Your task to perform on an android device: turn off sleep mode Image 0: 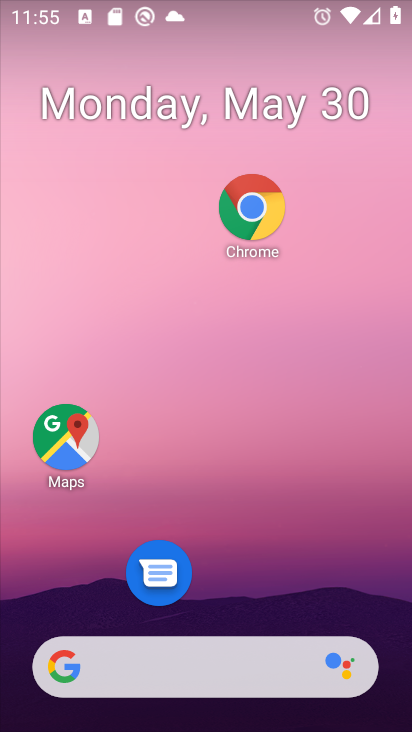
Step 0: drag from (268, 620) to (260, 24)
Your task to perform on an android device: turn off sleep mode Image 1: 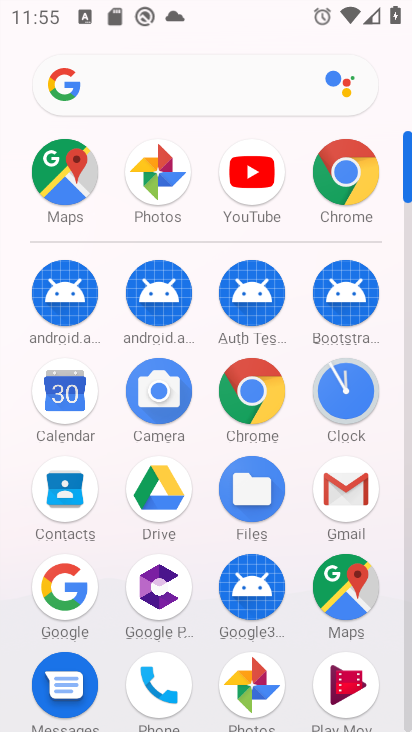
Step 1: drag from (126, 478) to (213, 27)
Your task to perform on an android device: turn off sleep mode Image 2: 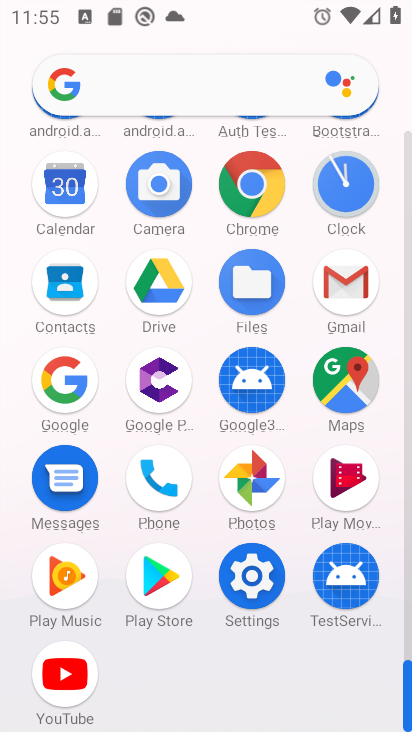
Step 2: click (267, 597)
Your task to perform on an android device: turn off sleep mode Image 3: 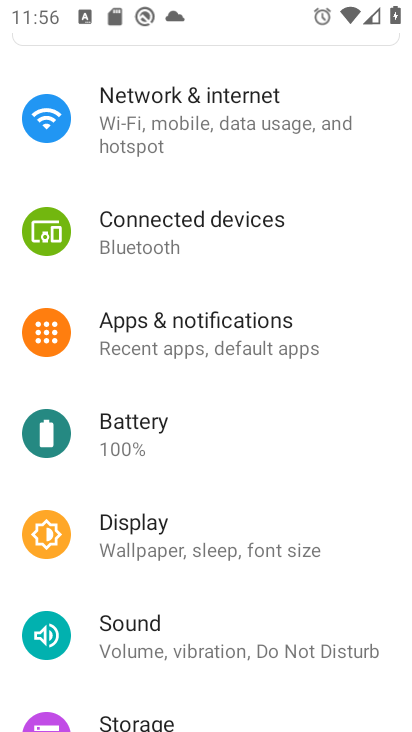
Step 3: click (237, 558)
Your task to perform on an android device: turn off sleep mode Image 4: 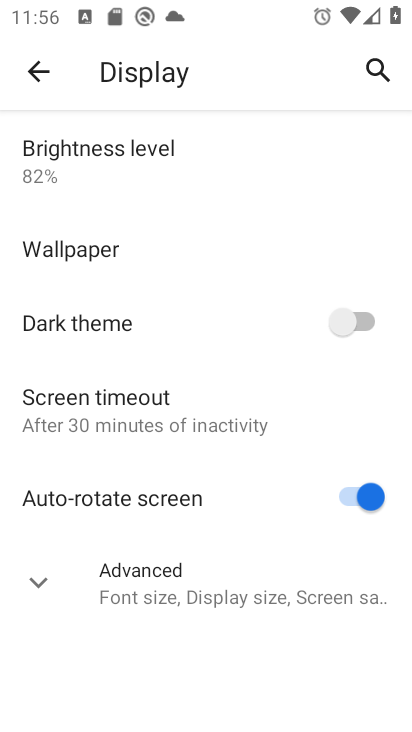
Step 4: task complete